Your task to perform on an android device: Show the shopping cart on amazon. Image 0: 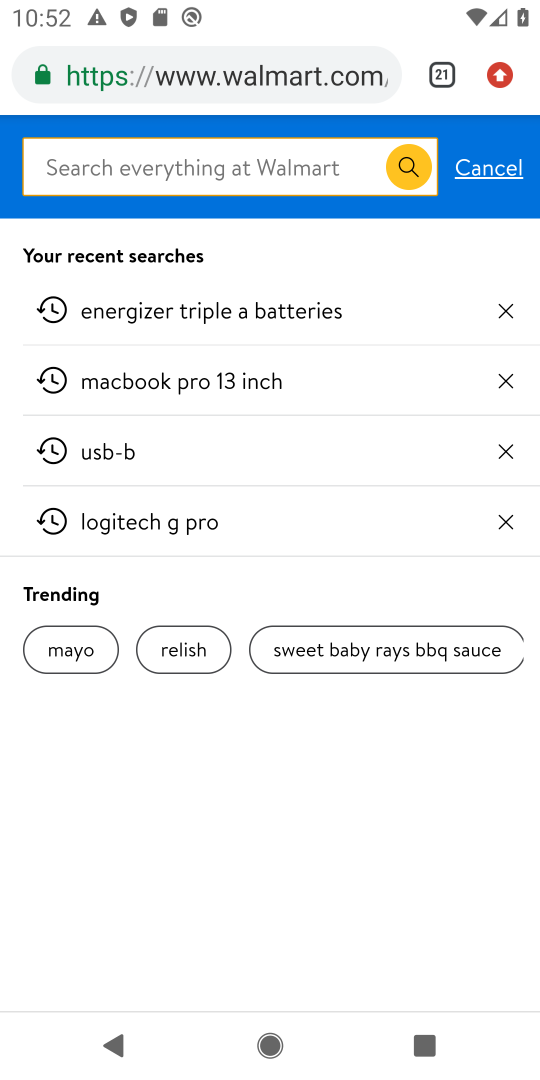
Step 0: task complete